Your task to perform on an android device: remove spam from my inbox in the gmail app Image 0: 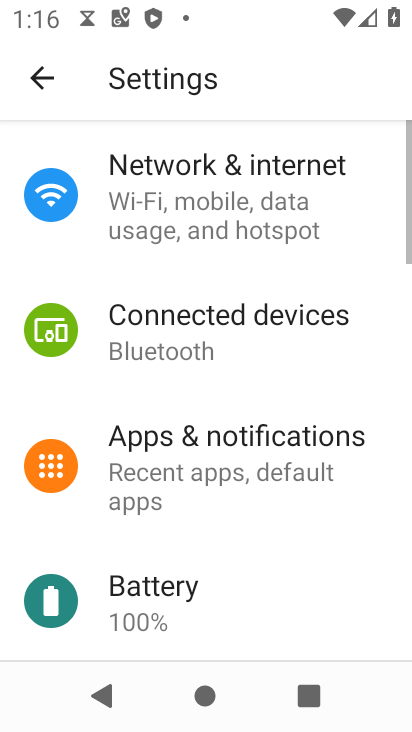
Step 0: press home button
Your task to perform on an android device: remove spam from my inbox in the gmail app Image 1: 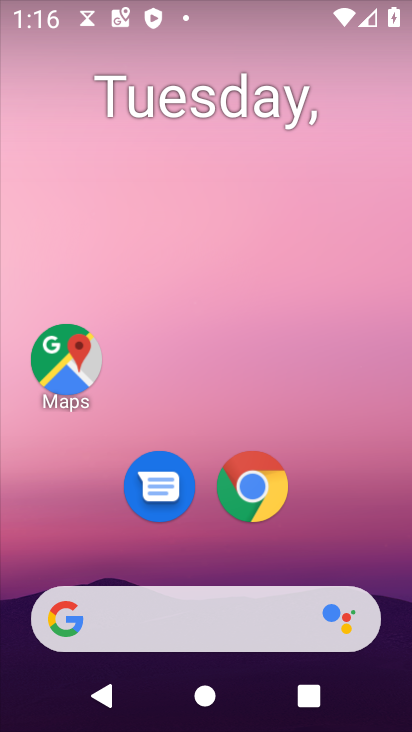
Step 1: drag from (349, 514) to (304, 99)
Your task to perform on an android device: remove spam from my inbox in the gmail app Image 2: 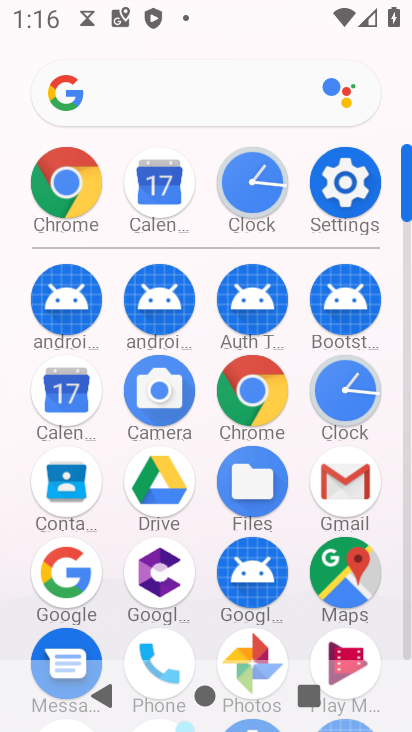
Step 2: click (342, 471)
Your task to perform on an android device: remove spam from my inbox in the gmail app Image 3: 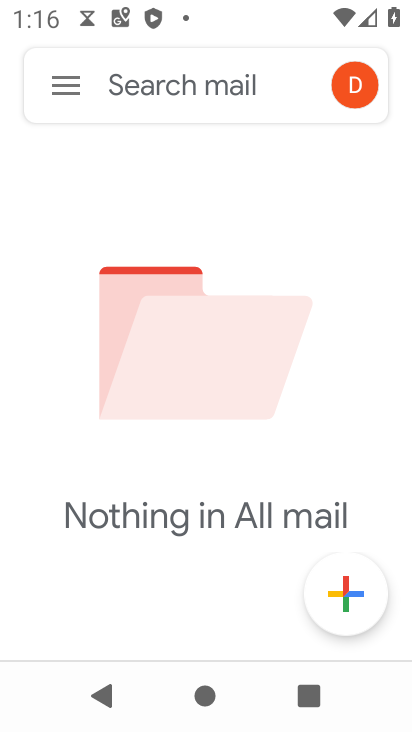
Step 3: click (63, 87)
Your task to perform on an android device: remove spam from my inbox in the gmail app Image 4: 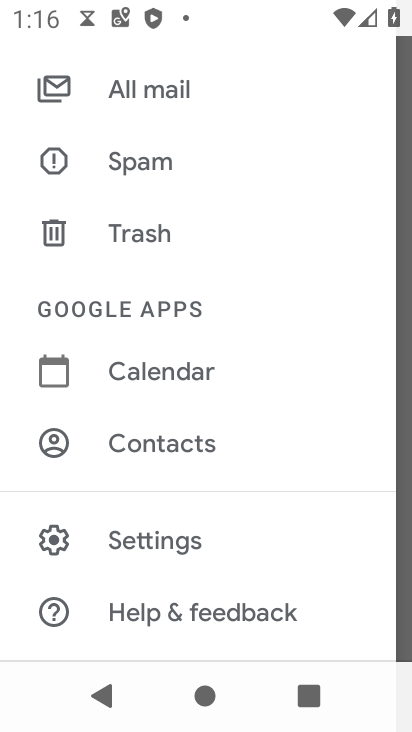
Step 4: click (163, 174)
Your task to perform on an android device: remove spam from my inbox in the gmail app Image 5: 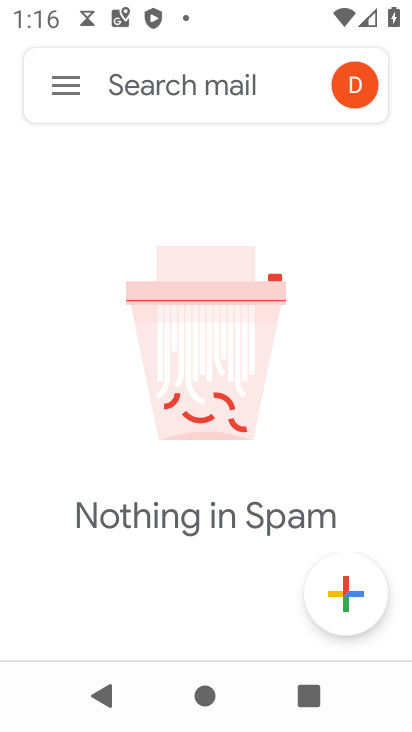
Step 5: task complete